Your task to perform on an android device: Open Google Maps and go to "Timeline" Image 0: 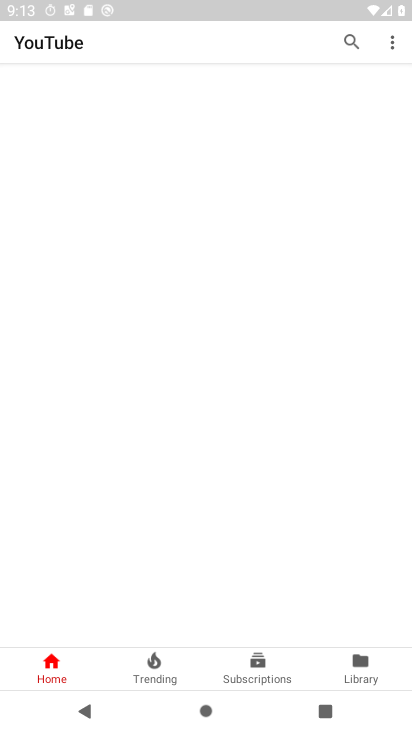
Step 0: press home button
Your task to perform on an android device: Open Google Maps and go to "Timeline" Image 1: 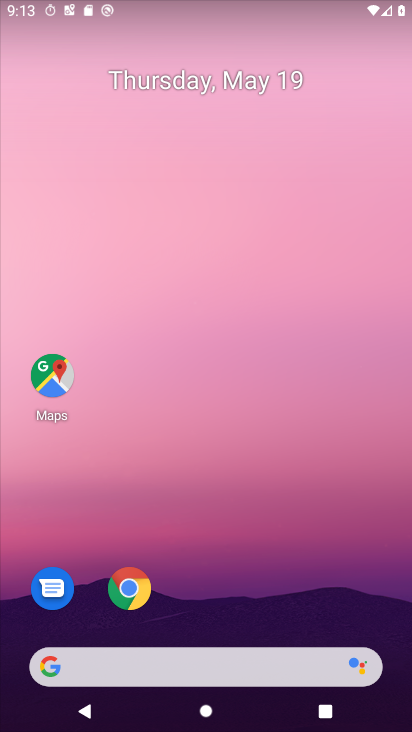
Step 1: click (52, 380)
Your task to perform on an android device: Open Google Maps and go to "Timeline" Image 2: 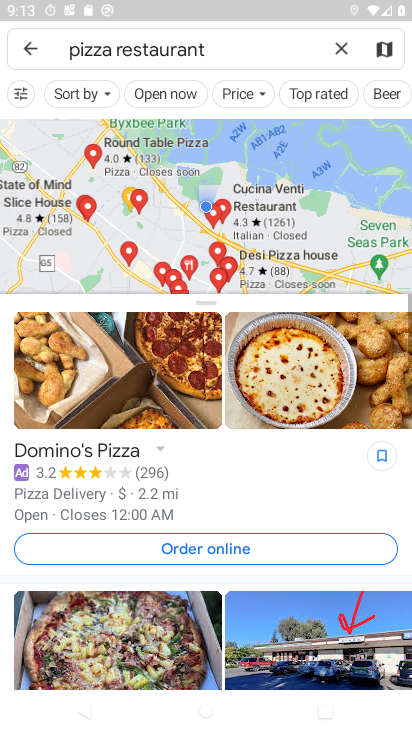
Step 2: click (29, 47)
Your task to perform on an android device: Open Google Maps and go to "Timeline" Image 3: 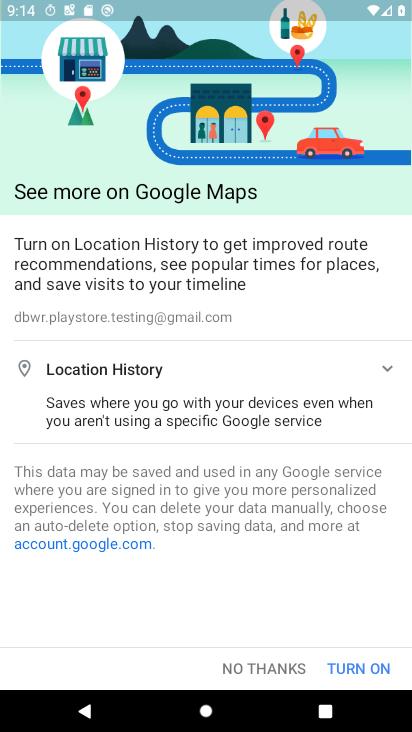
Step 3: click (229, 668)
Your task to perform on an android device: Open Google Maps and go to "Timeline" Image 4: 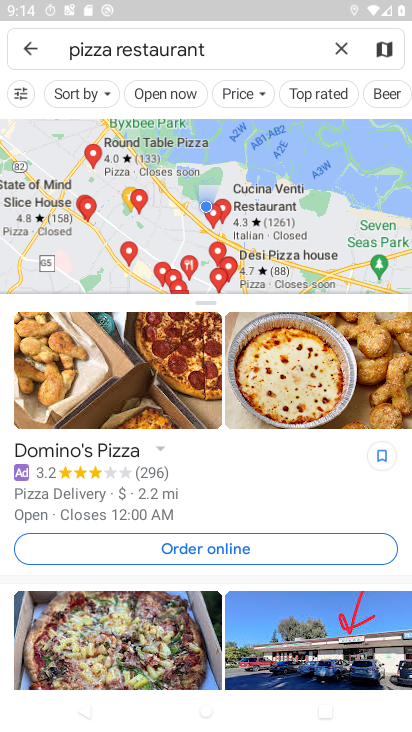
Step 4: click (28, 49)
Your task to perform on an android device: Open Google Maps and go to "Timeline" Image 5: 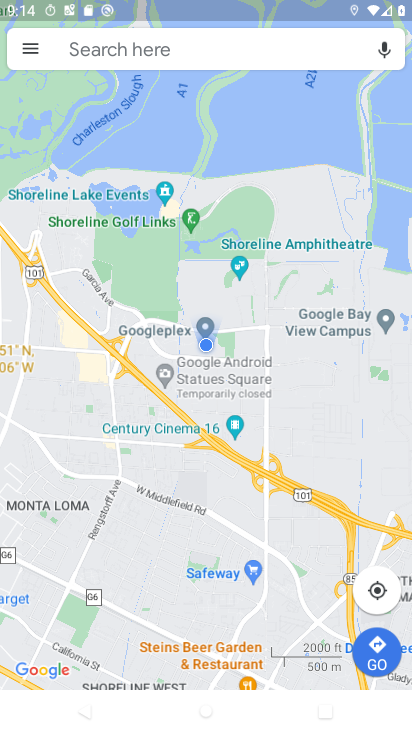
Step 5: click (28, 49)
Your task to perform on an android device: Open Google Maps and go to "Timeline" Image 6: 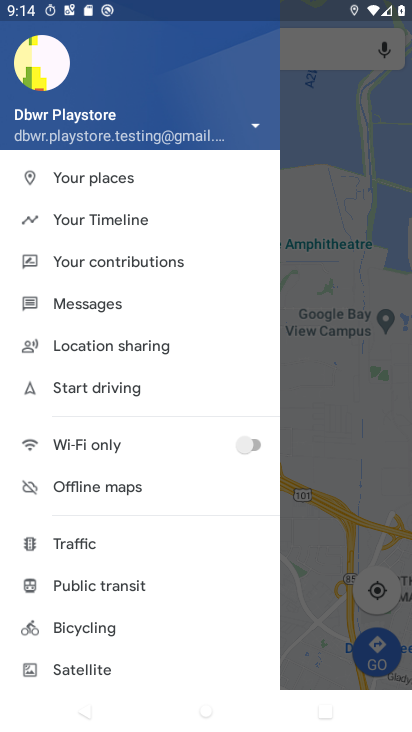
Step 6: click (121, 219)
Your task to perform on an android device: Open Google Maps and go to "Timeline" Image 7: 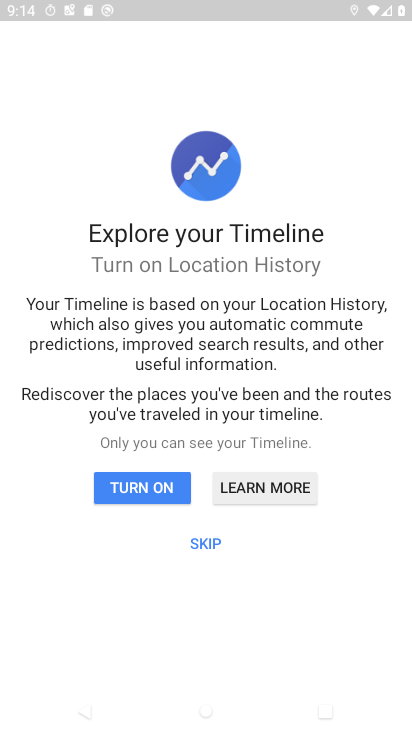
Step 7: click (164, 489)
Your task to perform on an android device: Open Google Maps and go to "Timeline" Image 8: 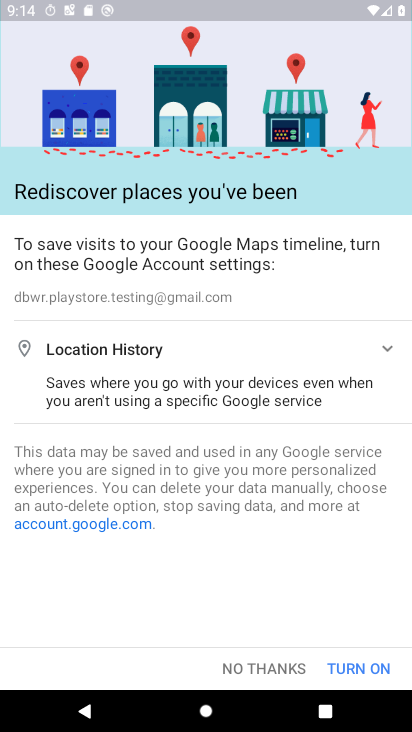
Step 8: click (245, 664)
Your task to perform on an android device: Open Google Maps and go to "Timeline" Image 9: 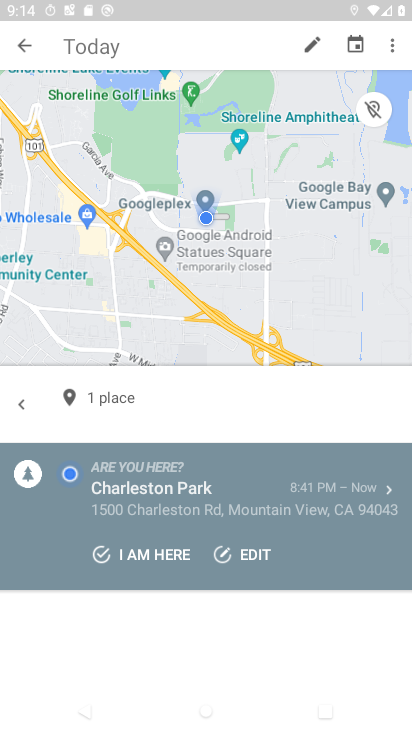
Step 9: task complete